Your task to perform on an android device: Open display settings Image 0: 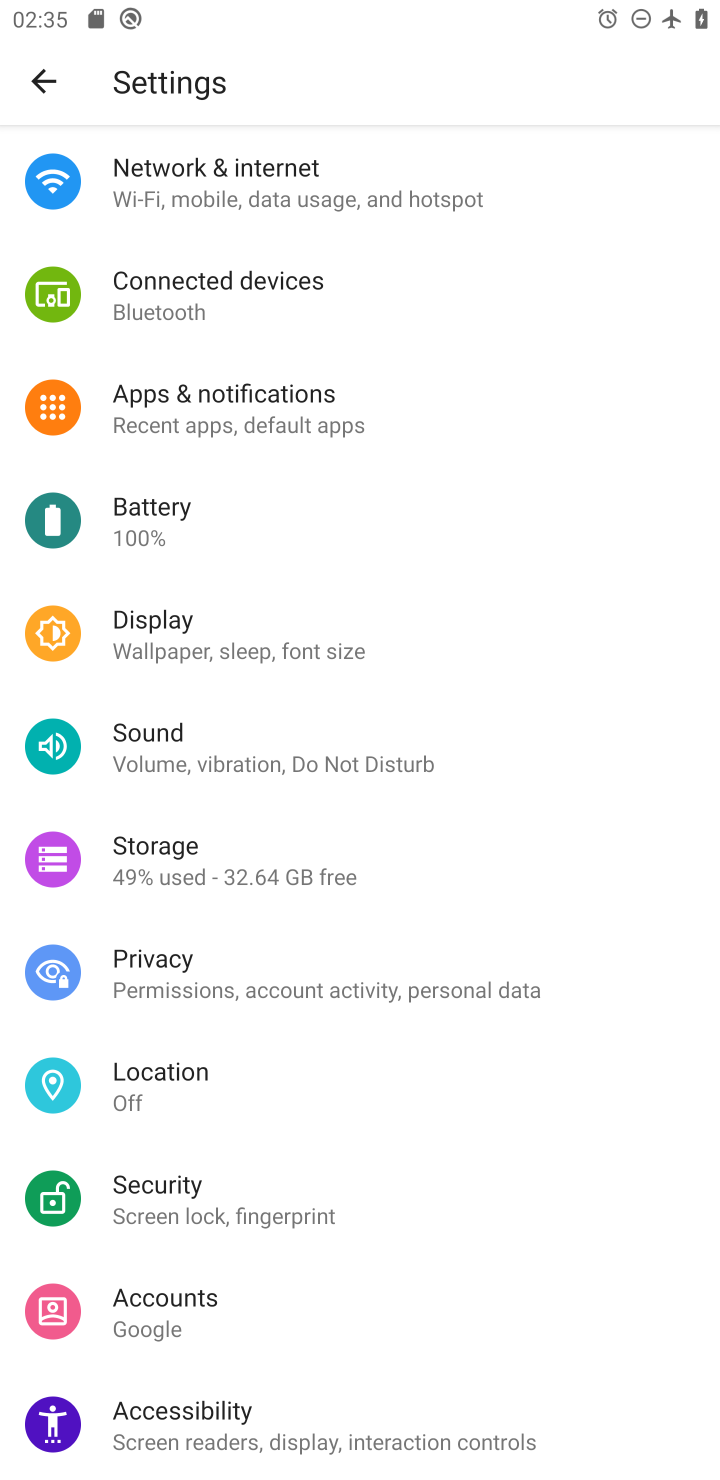
Step 0: click (146, 619)
Your task to perform on an android device: Open display settings Image 1: 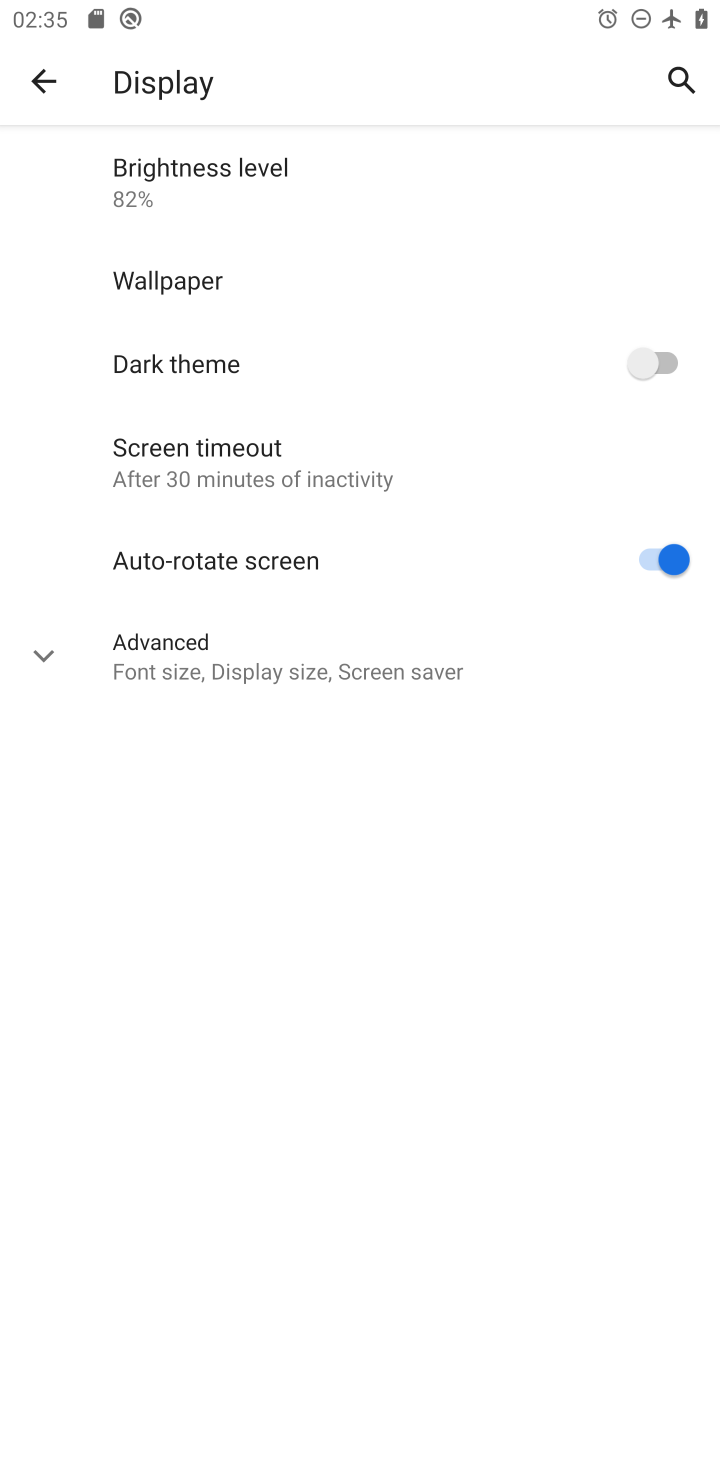
Step 1: task complete